Your task to perform on an android device: Open ESPN.com Image 0: 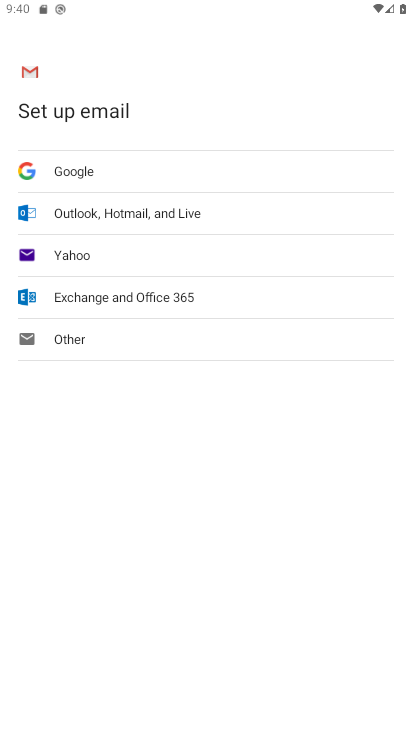
Step 0: press home button
Your task to perform on an android device: Open ESPN.com Image 1: 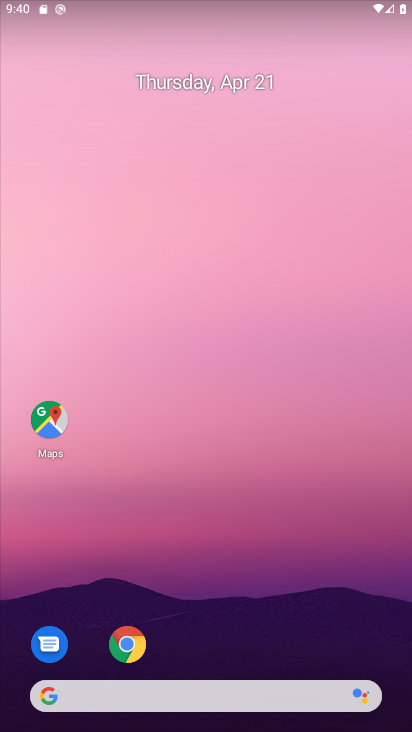
Step 1: click (124, 639)
Your task to perform on an android device: Open ESPN.com Image 2: 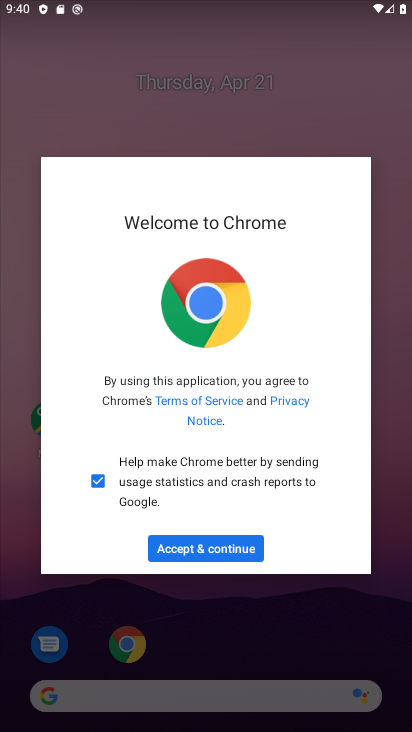
Step 2: click (227, 545)
Your task to perform on an android device: Open ESPN.com Image 3: 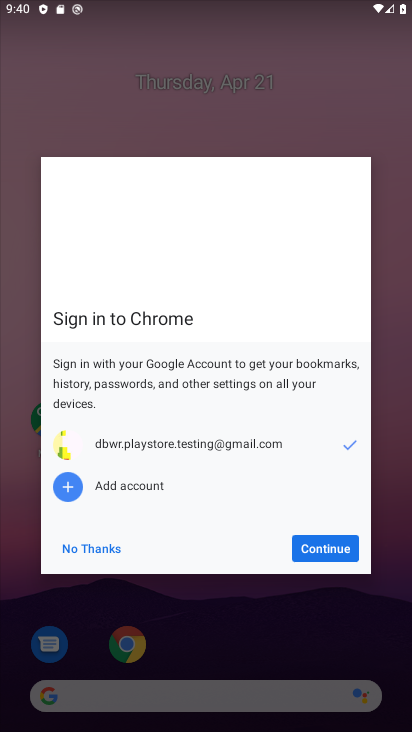
Step 3: click (317, 546)
Your task to perform on an android device: Open ESPN.com Image 4: 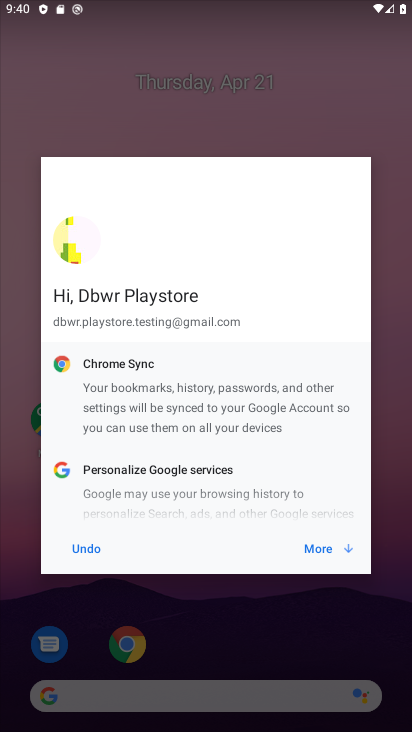
Step 4: click (317, 546)
Your task to perform on an android device: Open ESPN.com Image 5: 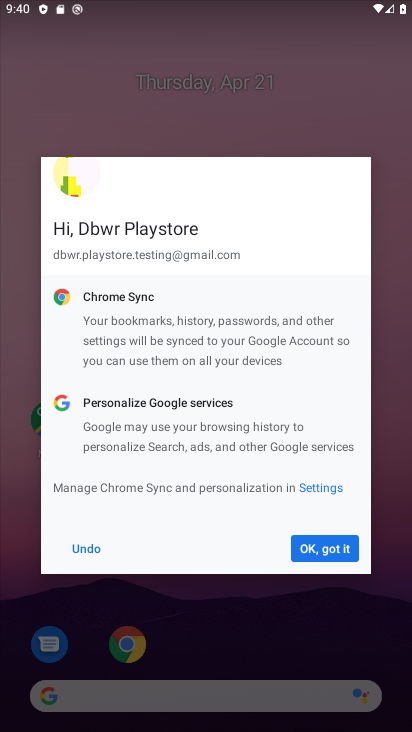
Step 5: click (317, 546)
Your task to perform on an android device: Open ESPN.com Image 6: 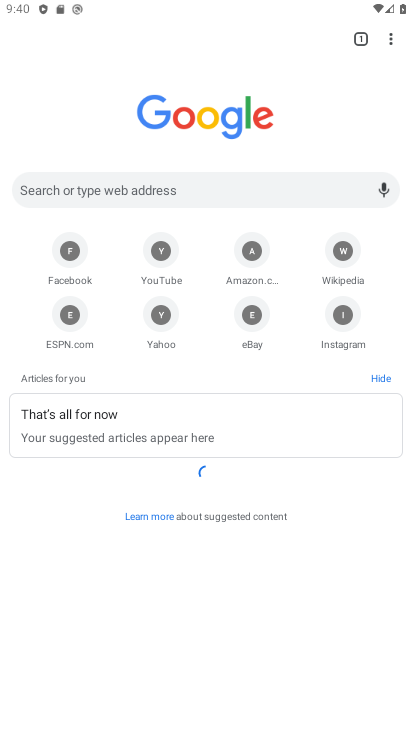
Step 6: click (66, 314)
Your task to perform on an android device: Open ESPN.com Image 7: 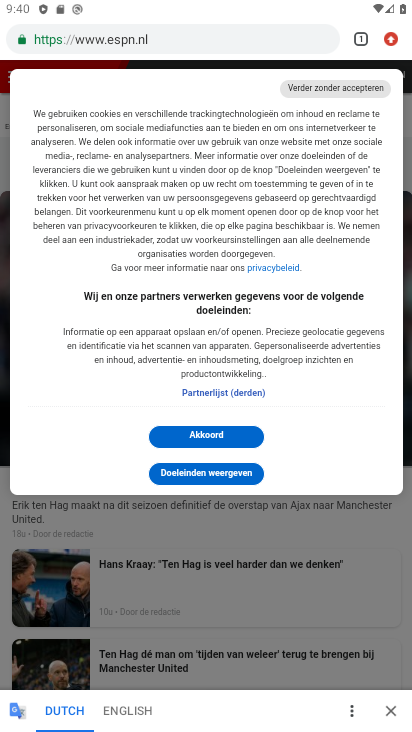
Step 7: task complete